Your task to perform on an android device: change notifications settings Image 0: 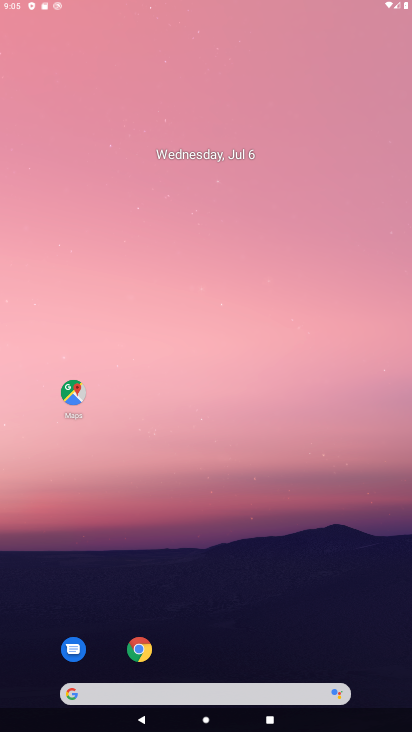
Step 0: drag from (182, 646) to (119, 11)
Your task to perform on an android device: change notifications settings Image 1: 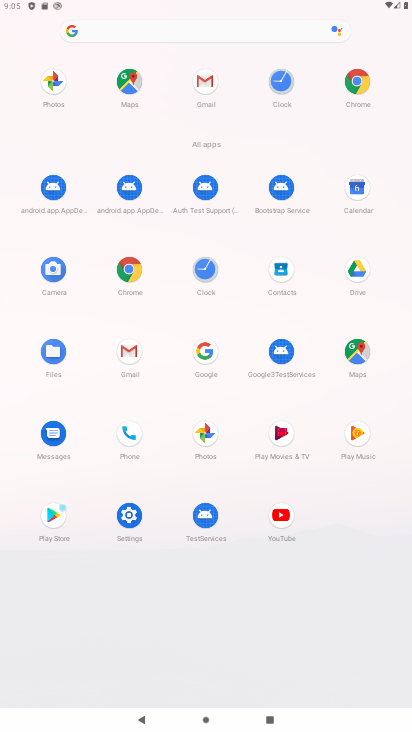
Step 1: click (116, 518)
Your task to perform on an android device: change notifications settings Image 2: 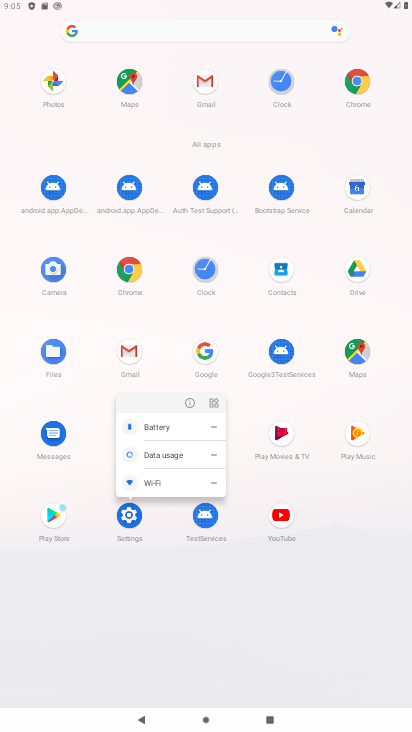
Step 2: click (183, 405)
Your task to perform on an android device: change notifications settings Image 3: 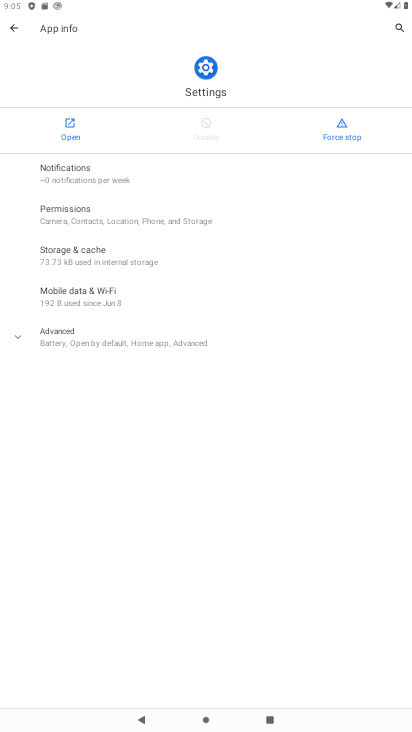
Step 3: drag from (226, 172) to (367, 578)
Your task to perform on an android device: change notifications settings Image 4: 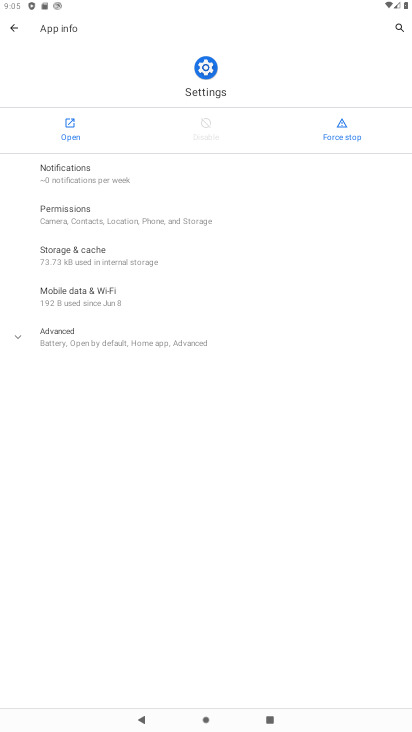
Step 4: click (87, 167)
Your task to perform on an android device: change notifications settings Image 5: 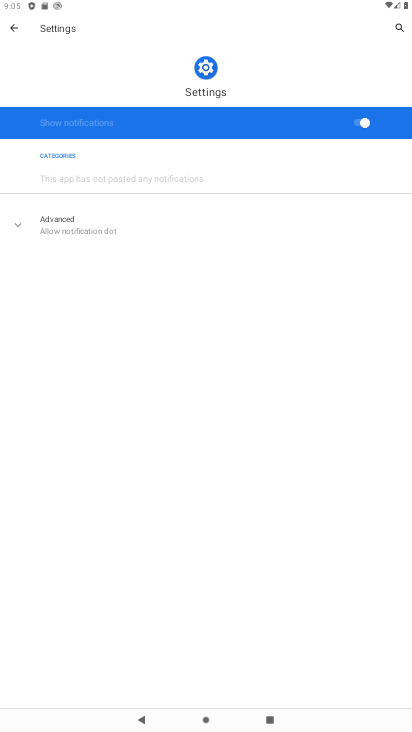
Step 5: click (360, 123)
Your task to perform on an android device: change notifications settings Image 6: 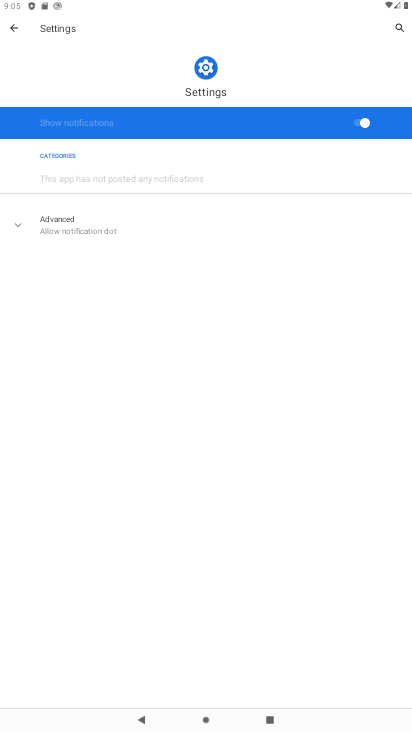
Step 6: click (353, 121)
Your task to perform on an android device: change notifications settings Image 7: 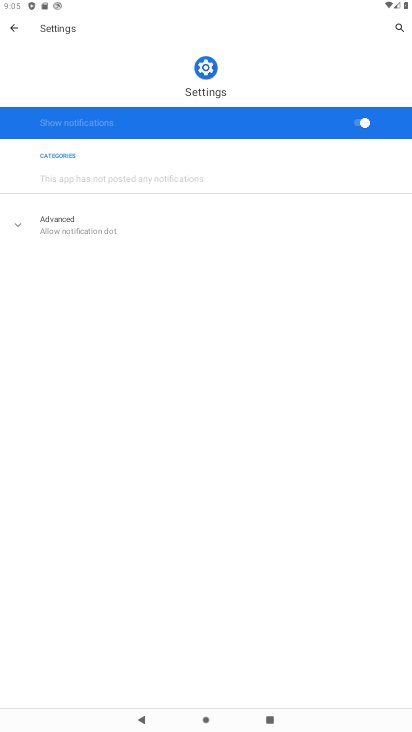
Step 7: drag from (364, 126) to (244, 124)
Your task to perform on an android device: change notifications settings Image 8: 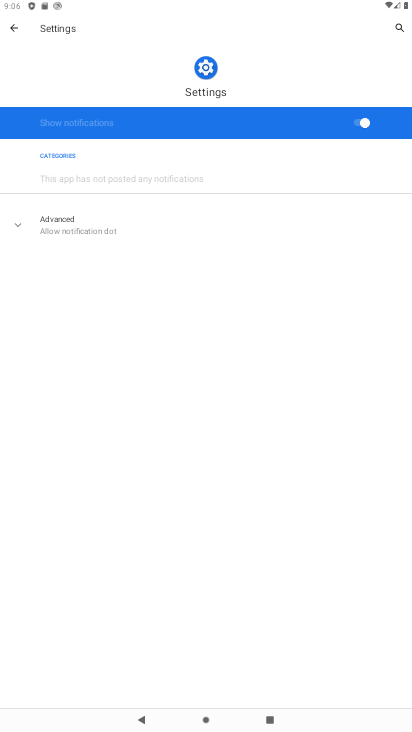
Step 8: click (363, 123)
Your task to perform on an android device: change notifications settings Image 9: 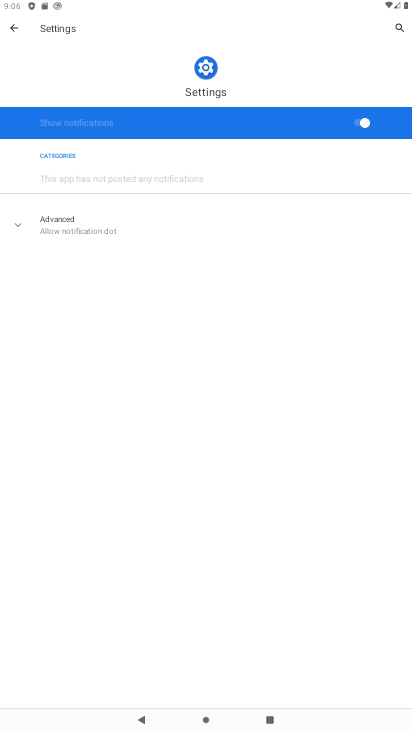
Step 9: task complete